Your task to perform on an android device: change the upload size in google photos Image 0: 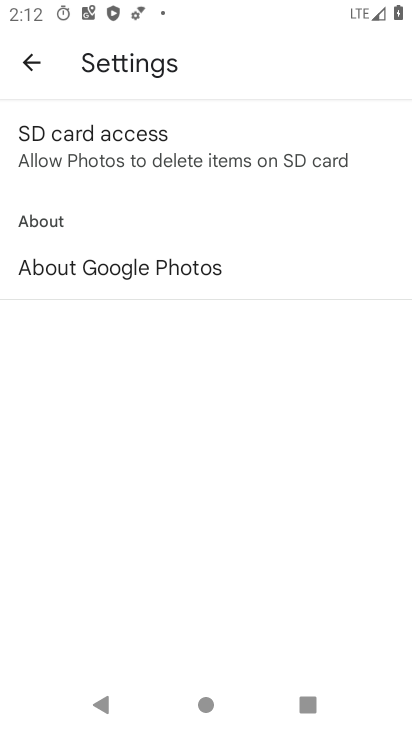
Step 0: click (38, 74)
Your task to perform on an android device: change the upload size in google photos Image 1: 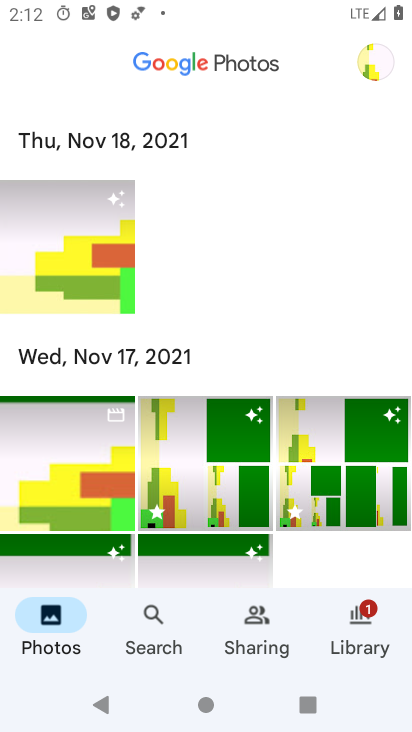
Step 1: click (370, 627)
Your task to perform on an android device: change the upload size in google photos Image 2: 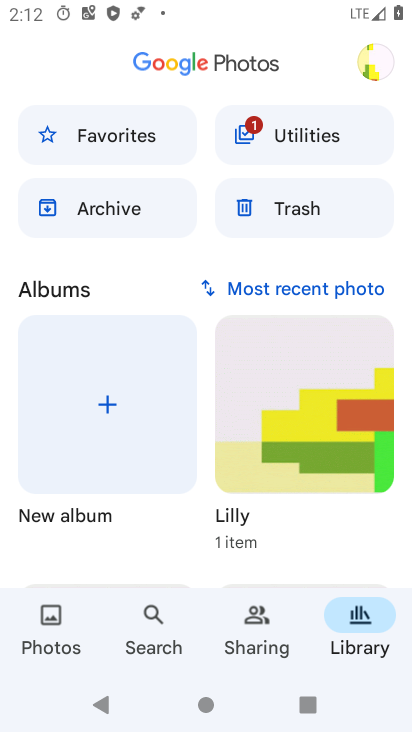
Step 2: click (371, 74)
Your task to perform on an android device: change the upload size in google photos Image 3: 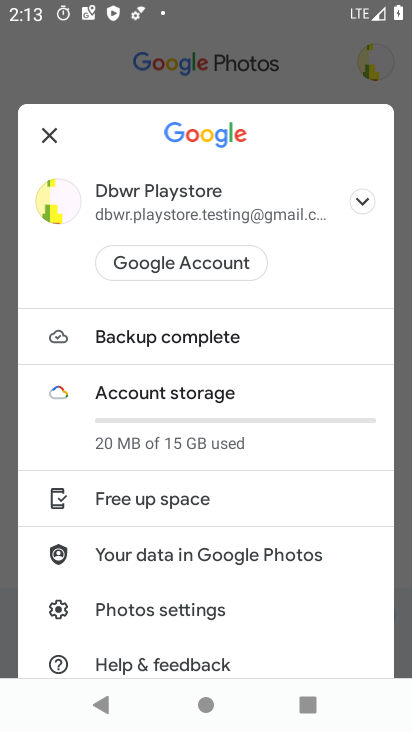
Step 3: click (195, 615)
Your task to perform on an android device: change the upload size in google photos Image 4: 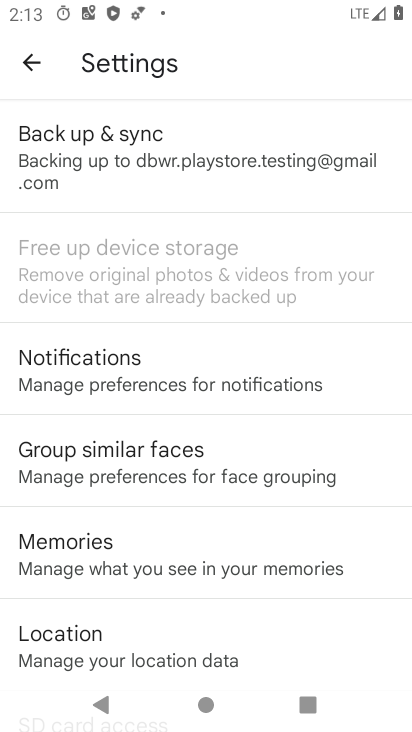
Step 4: click (234, 166)
Your task to perform on an android device: change the upload size in google photos Image 5: 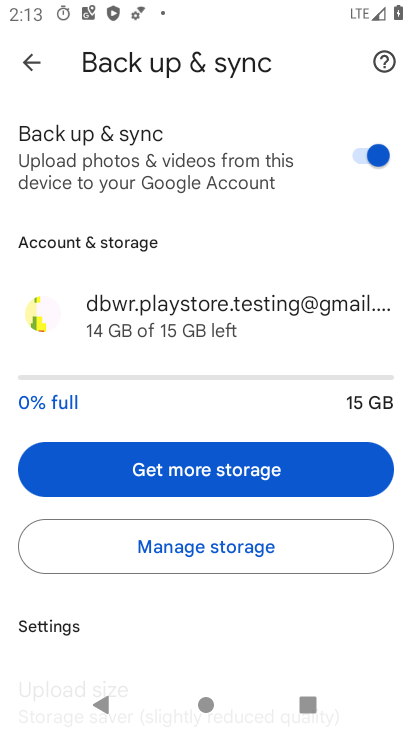
Step 5: drag from (220, 285) to (246, 115)
Your task to perform on an android device: change the upload size in google photos Image 6: 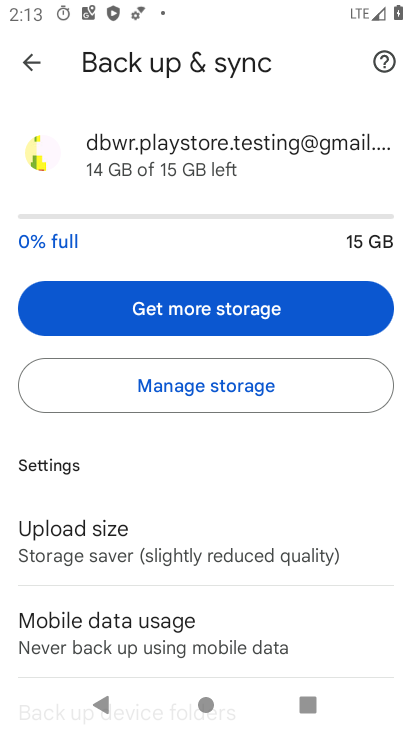
Step 6: drag from (181, 551) to (193, 414)
Your task to perform on an android device: change the upload size in google photos Image 7: 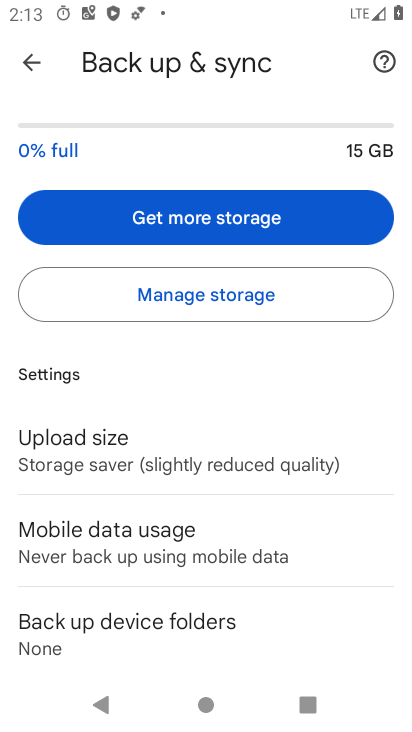
Step 7: click (198, 451)
Your task to perform on an android device: change the upload size in google photos Image 8: 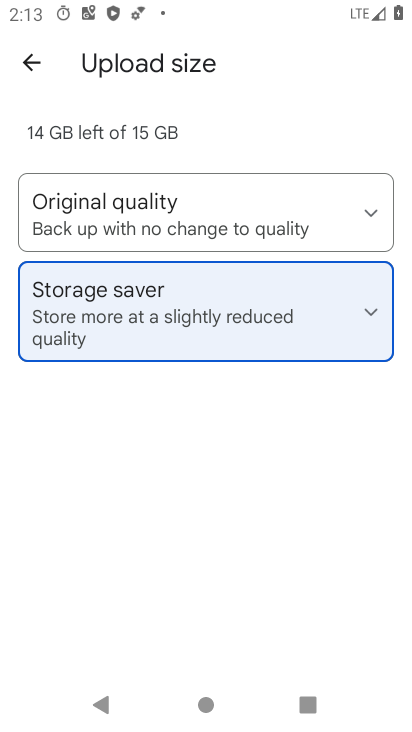
Step 8: click (204, 217)
Your task to perform on an android device: change the upload size in google photos Image 9: 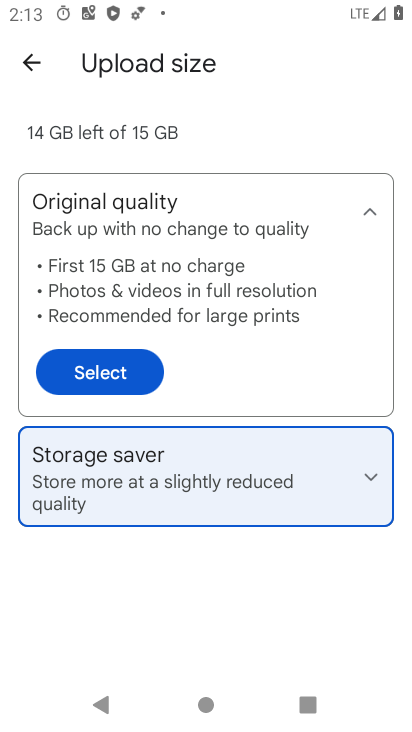
Step 9: click (107, 381)
Your task to perform on an android device: change the upload size in google photos Image 10: 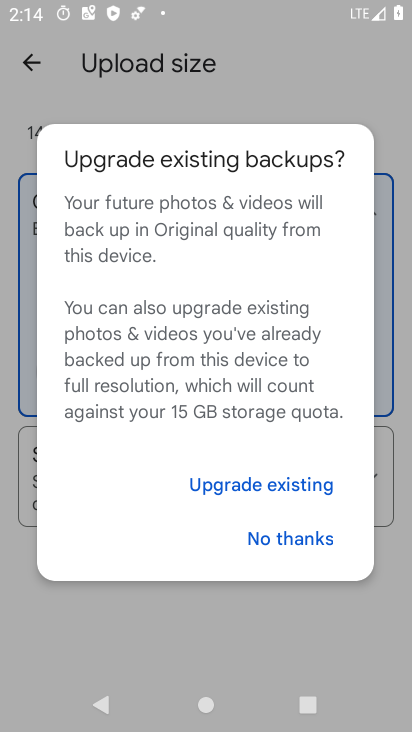
Step 10: click (289, 529)
Your task to perform on an android device: change the upload size in google photos Image 11: 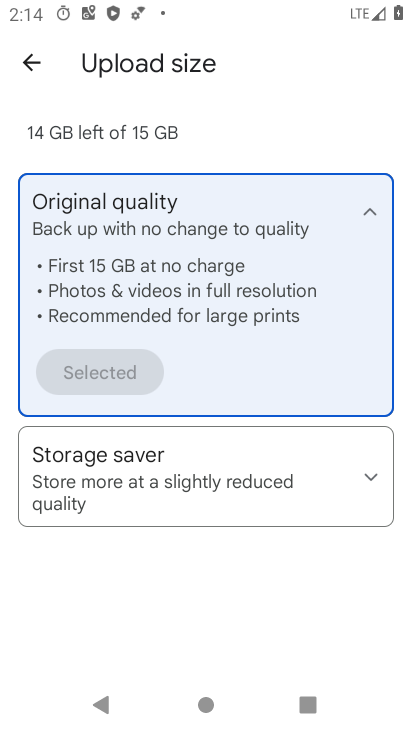
Step 11: task complete